Your task to perform on an android device: Go to settings Image 0: 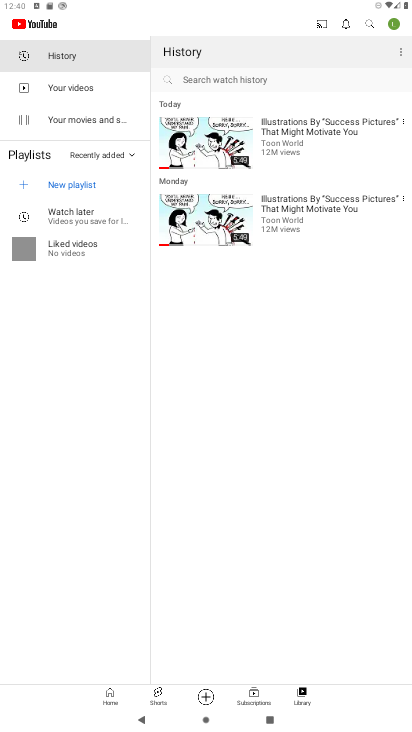
Step 0: press home button
Your task to perform on an android device: Go to settings Image 1: 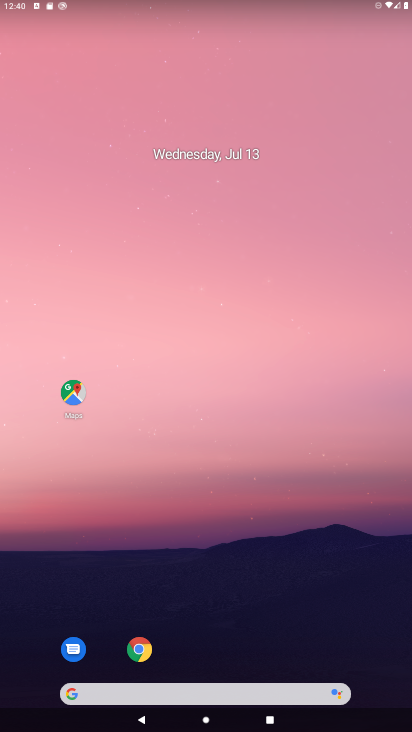
Step 1: drag from (378, 657) to (339, 175)
Your task to perform on an android device: Go to settings Image 2: 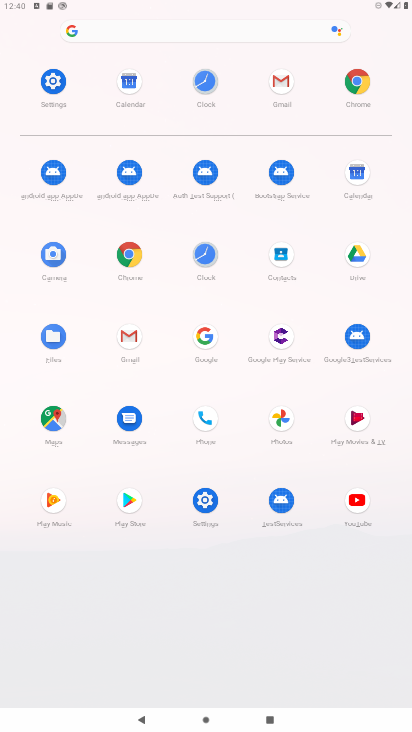
Step 2: click (206, 498)
Your task to perform on an android device: Go to settings Image 3: 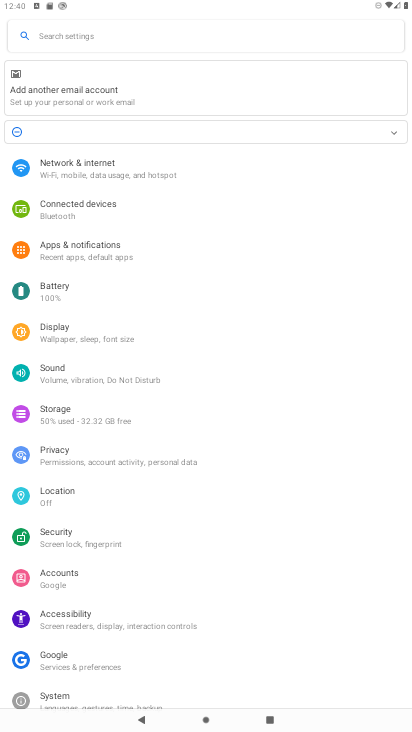
Step 3: task complete